Your task to perform on an android device: open a new tab in the chrome app Image 0: 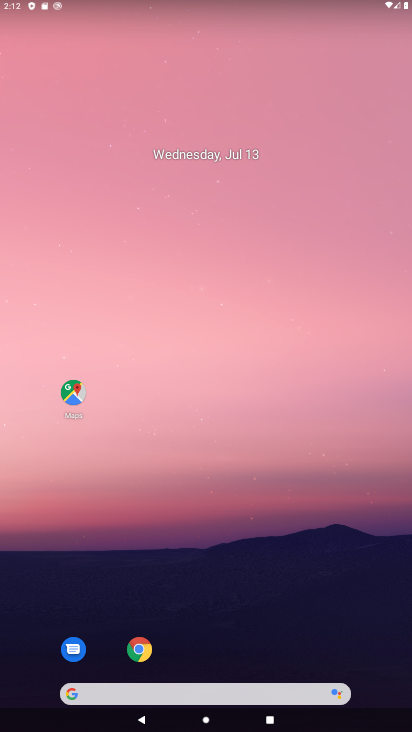
Step 0: click (137, 648)
Your task to perform on an android device: open a new tab in the chrome app Image 1: 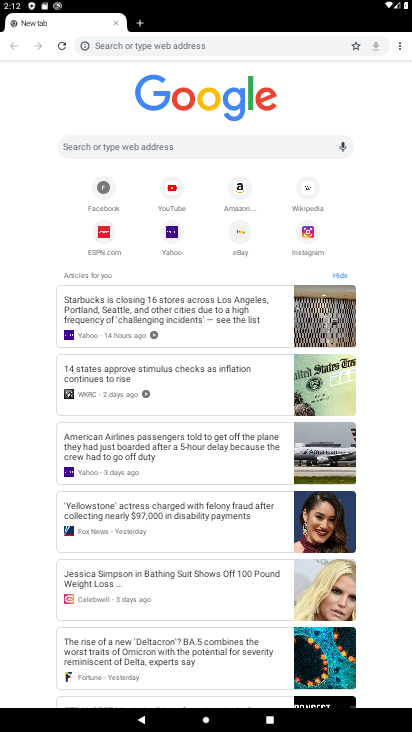
Step 1: click (140, 24)
Your task to perform on an android device: open a new tab in the chrome app Image 2: 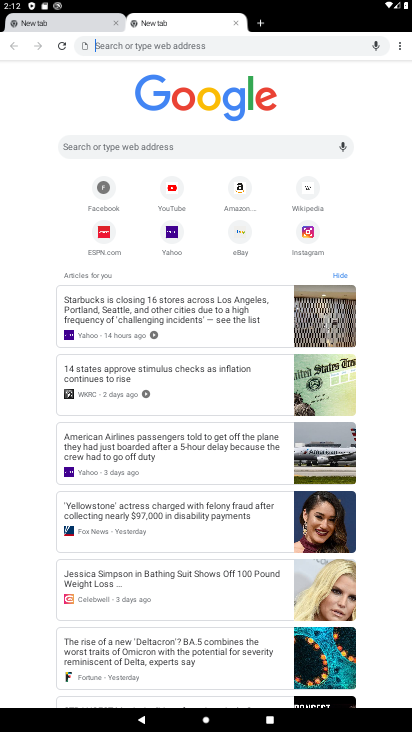
Step 2: task complete